Your task to perform on an android device: add a contact in the contacts app Image 0: 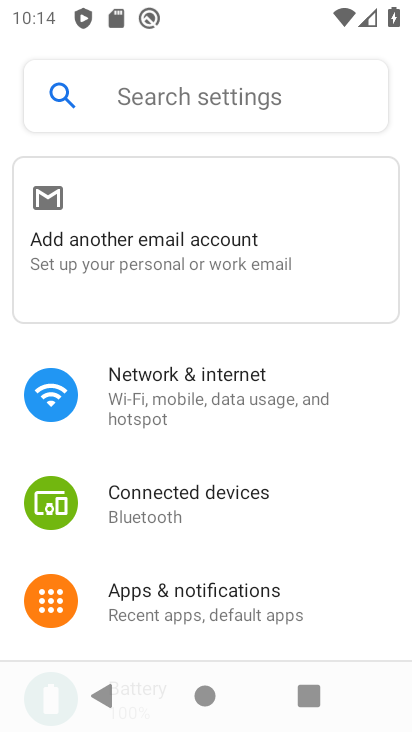
Step 0: press home button
Your task to perform on an android device: add a contact in the contacts app Image 1: 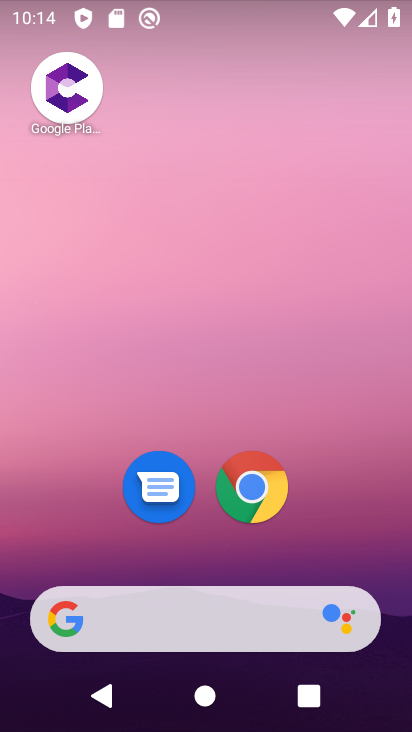
Step 1: drag from (268, 561) to (324, 130)
Your task to perform on an android device: add a contact in the contacts app Image 2: 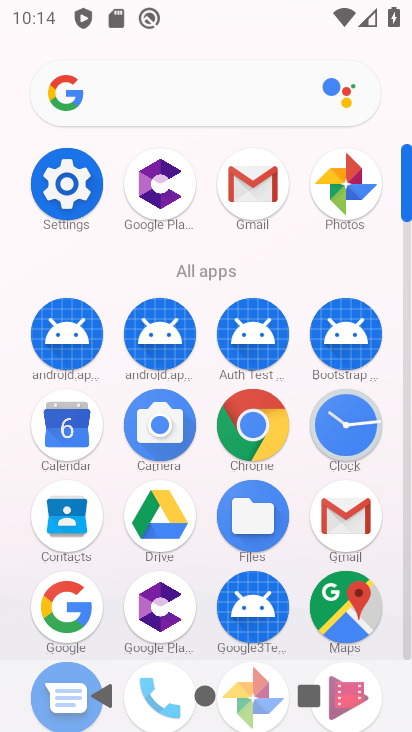
Step 2: drag from (305, 598) to (322, 217)
Your task to perform on an android device: add a contact in the contacts app Image 3: 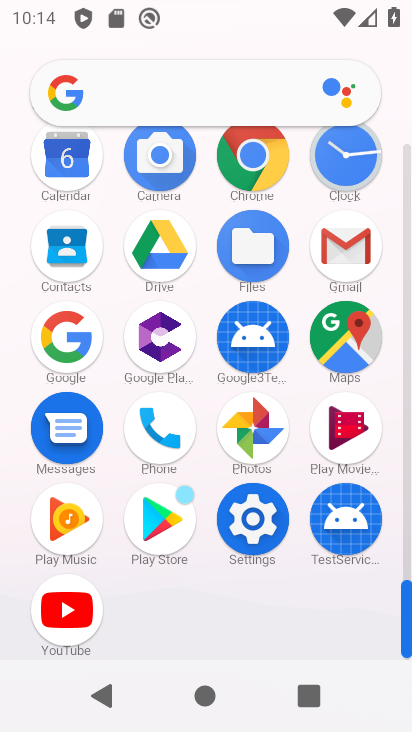
Step 3: click (79, 272)
Your task to perform on an android device: add a contact in the contacts app Image 4: 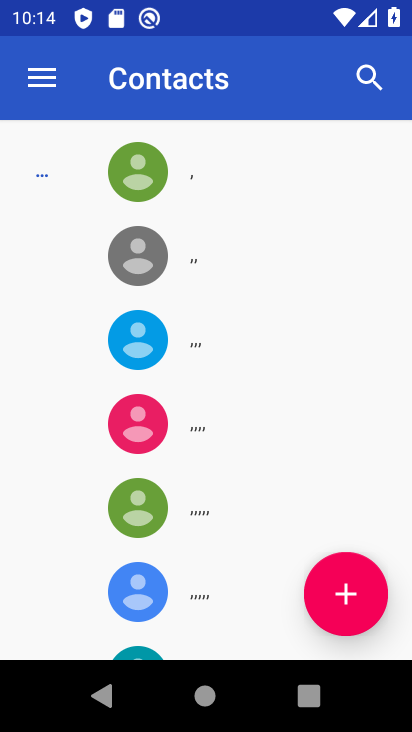
Step 4: click (347, 579)
Your task to perform on an android device: add a contact in the contacts app Image 5: 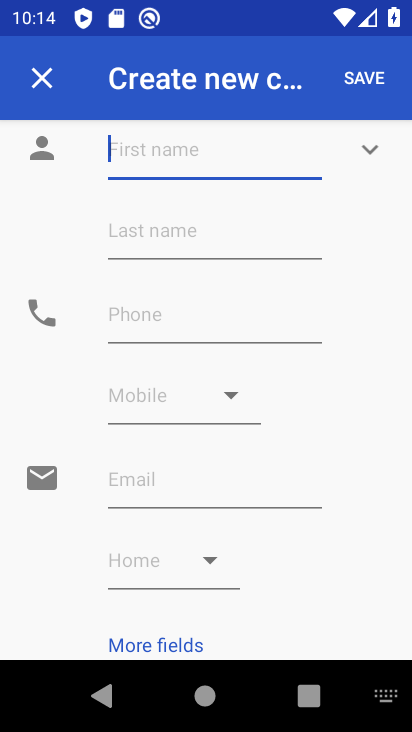
Step 5: type "hjygthfcvh"
Your task to perform on an android device: add a contact in the contacts app Image 6: 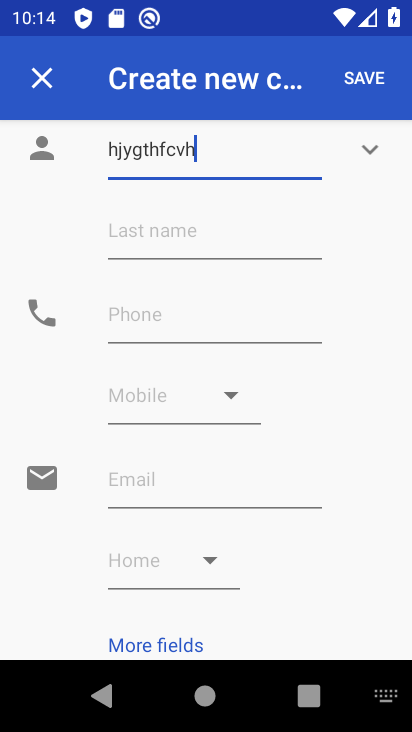
Step 6: click (206, 323)
Your task to perform on an android device: add a contact in the contacts app Image 7: 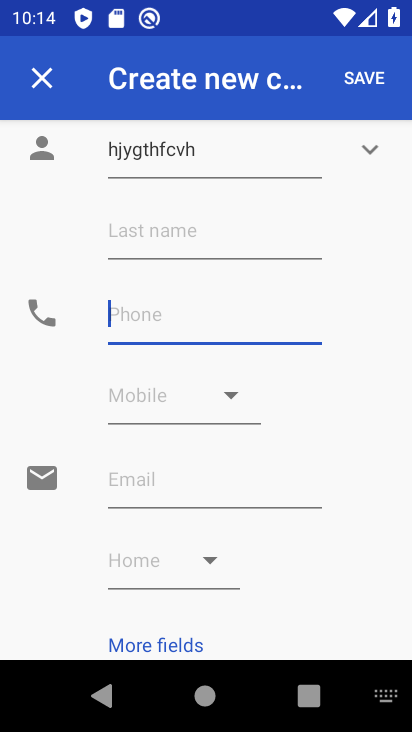
Step 7: click (206, 323)
Your task to perform on an android device: add a contact in the contacts app Image 8: 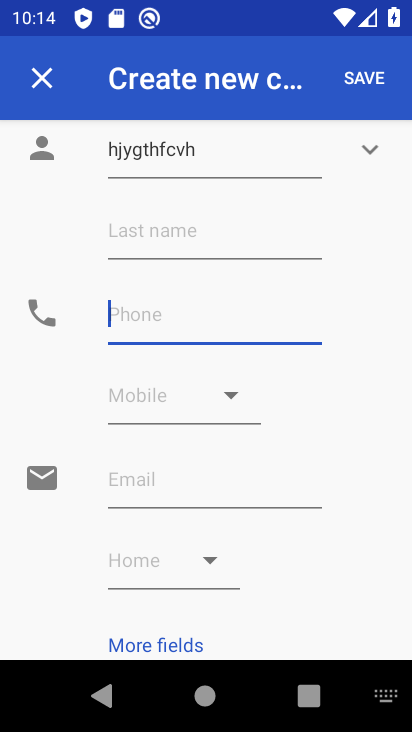
Step 8: click (206, 323)
Your task to perform on an android device: add a contact in the contacts app Image 9: 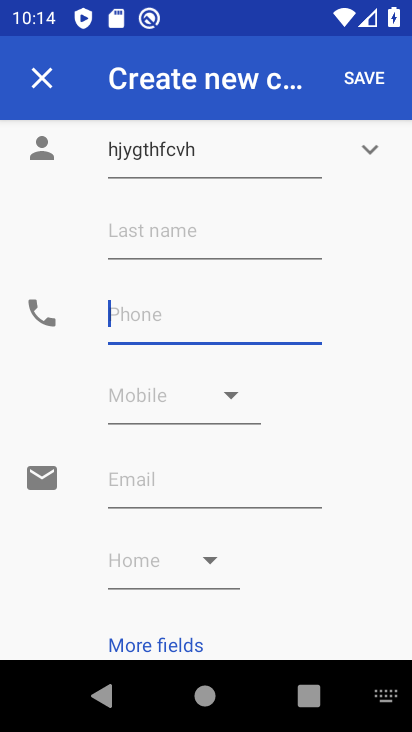
Step 9: click (206, 323)
Your task to perform on an android device: add a contact in the contacts app Image 10: 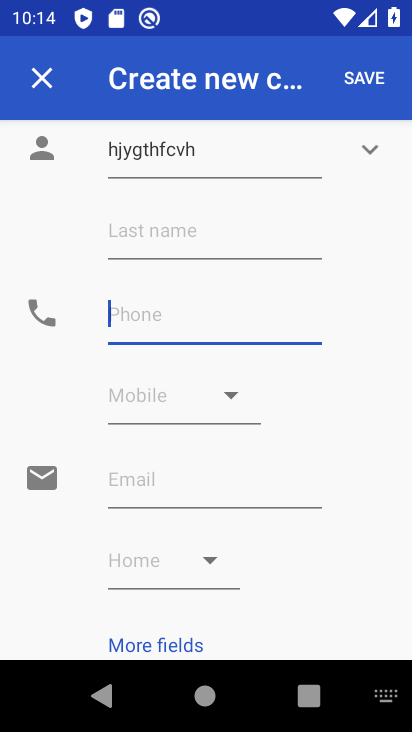
Step 10: type "765678654"
Your task to perform on an android device: add a contact in the contacts app Image 11: 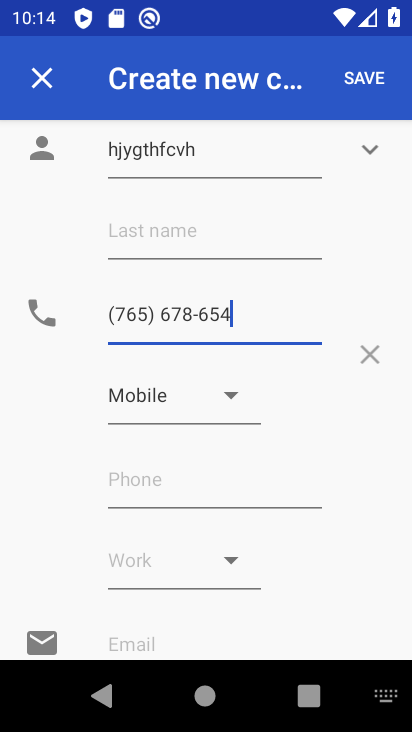
Step 11: click (360, 78)
Your task to perform on an android device: add a contact in the contacts app Image 12: 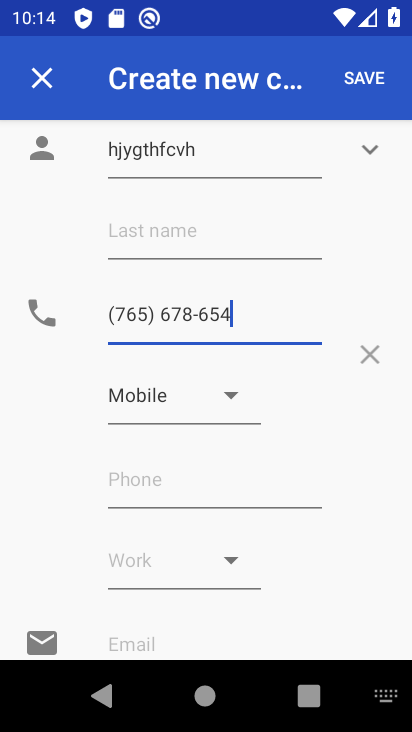
Step 12: click (360, 78)
Your task to perform on an android device: add a contact in the contacts app Image 13: 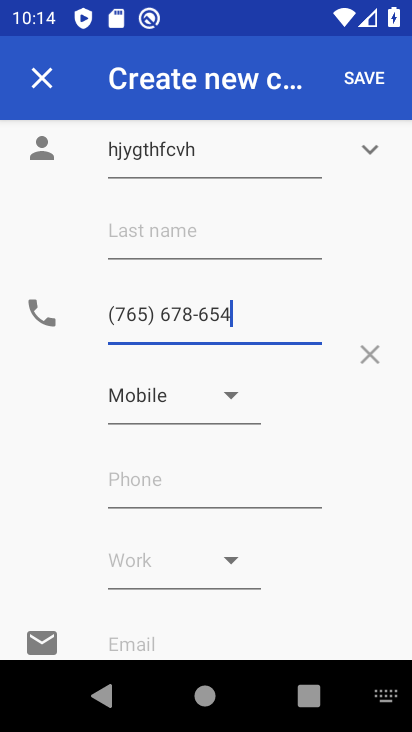
Step 13: click (360, 78)
Your task to perform on an android device: add a contact in the contacts app Image 14: 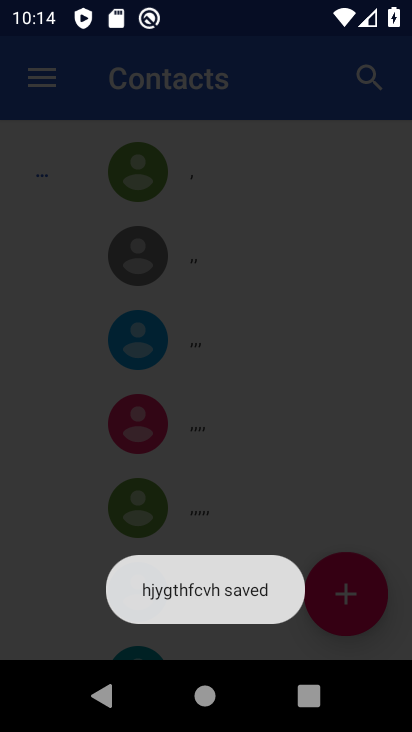
Step 14: task complete